Your task to perform on an android device: Go to Wikipedia Image 0: 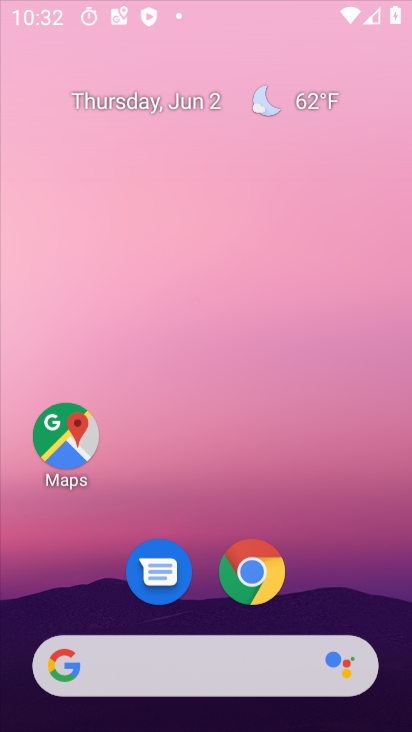
Step 0: click (77, 171)
Your task to perform on an android device: Go to Wikipedia Image 1: 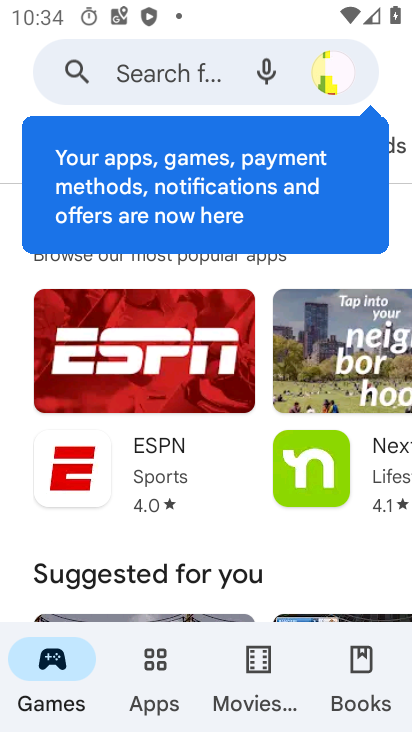
Step 1: press home button
Your task to perform on an android device: Go to Wikipedia Image 2: 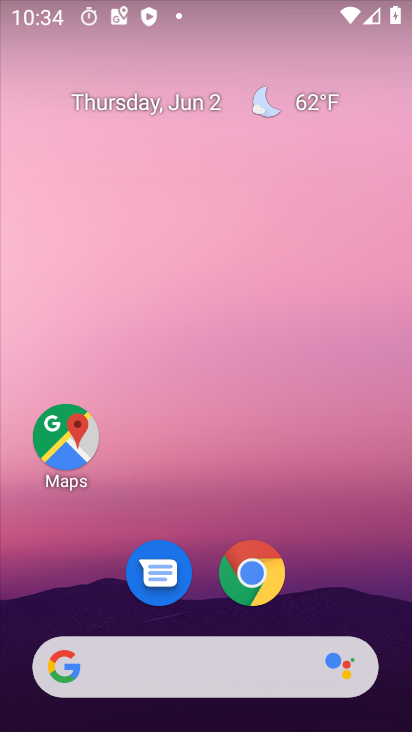
Step 2: drag from (282, 492) to (367, 134)
Your task to perform on an android device: Go to Wikipedia Image 3: 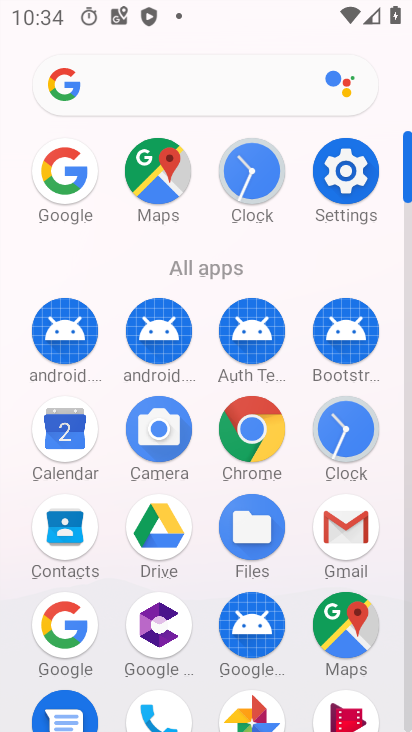
Step 3: click (234, 438)
Your task to perform on an android device: Go to Wikipedia Image 4: 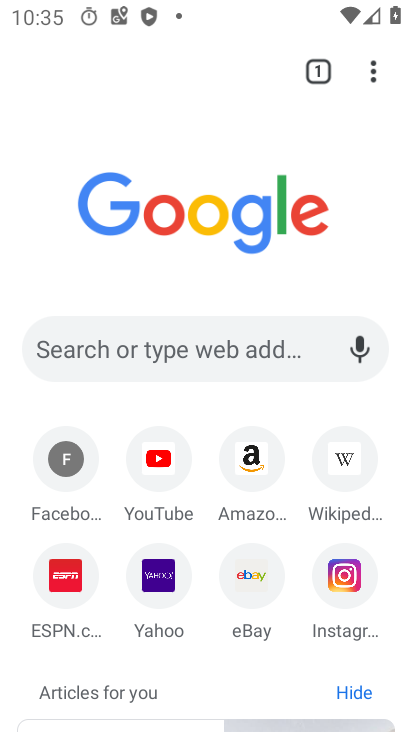
Step 4: click (355, 460)
Your task to perform on an android device: Go to Wikipedia Image 5: 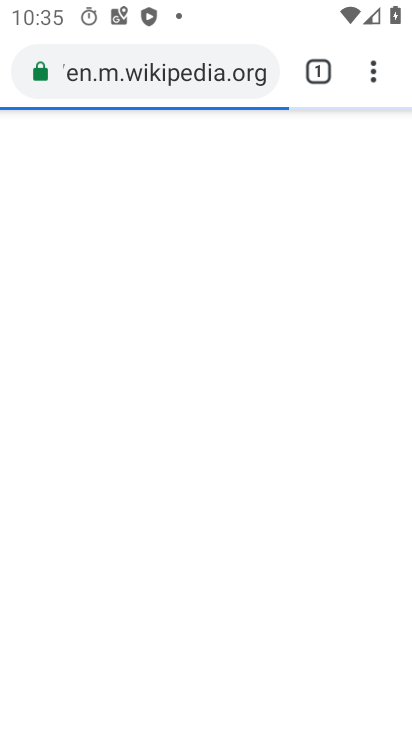
Step 5: task complete